Your task to perform on an android device: allow cookies in the chrome app Image 0: 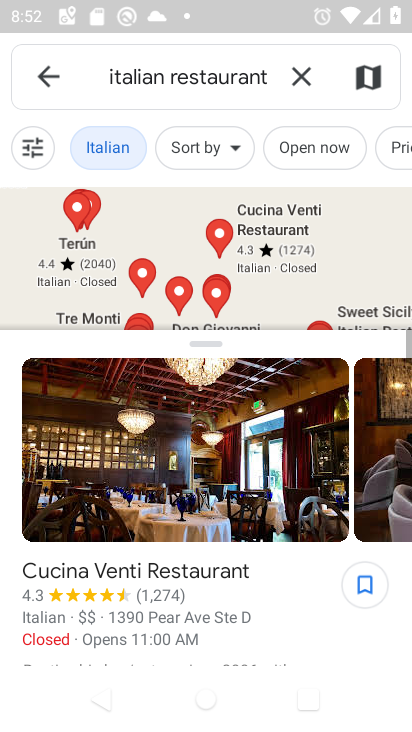
Step 0: press home button
Your task to perform on an android device: allow cookies in the chrome app Image 1: 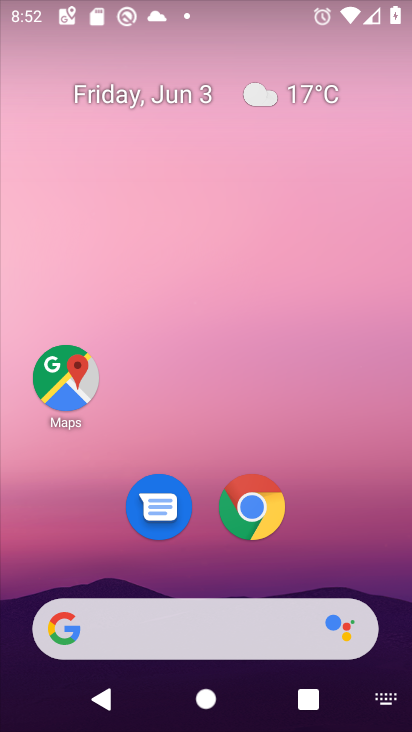
Step 1: click (233, 512)
Your task to perform on an android device: allow cookies in the chrome app Image 2: 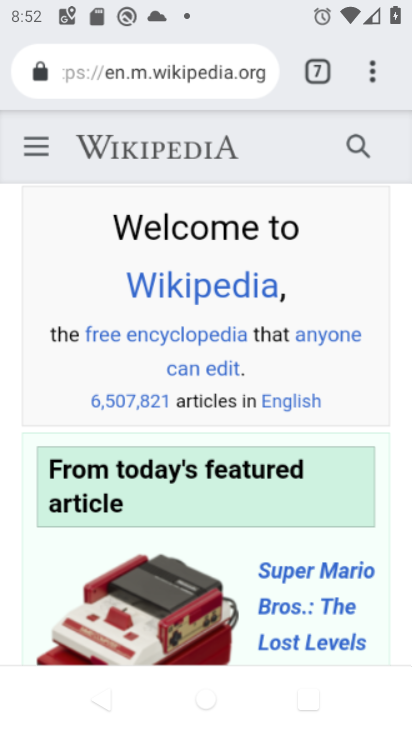
Step 2: click (369, 77)
Your task to perform on an android device: allow cookies in the chrome app Image 3: 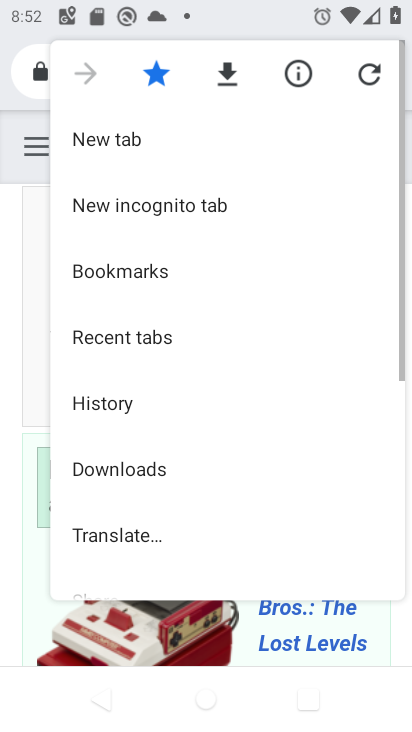
Step 3: click (203, 390)
Your task to perform on an android device: allow cookies in the chrome app Image 4: 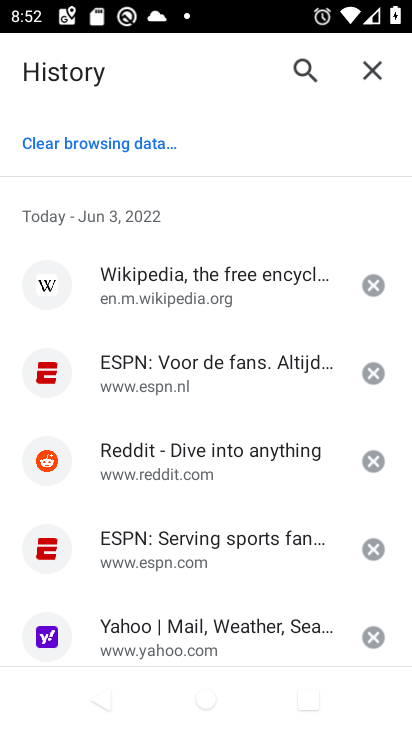
Step 4: click (84, 130)
Your task to perform on an android device: allow cookies in the chrome app Image 5: 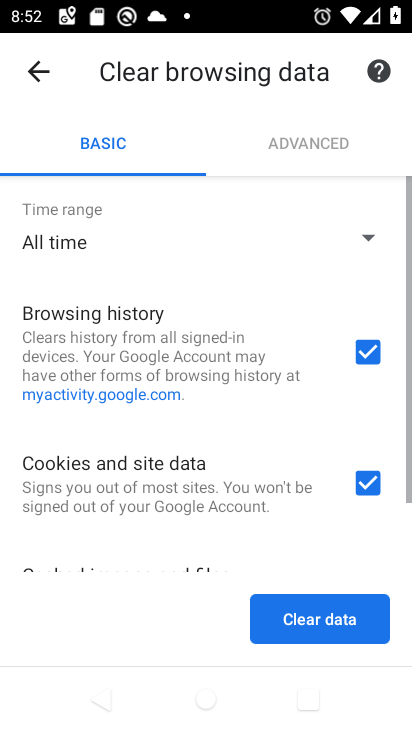
Step 5: click (350, 616)
Your task to perform on an android device: allow cookies in the chrome app Image 6: 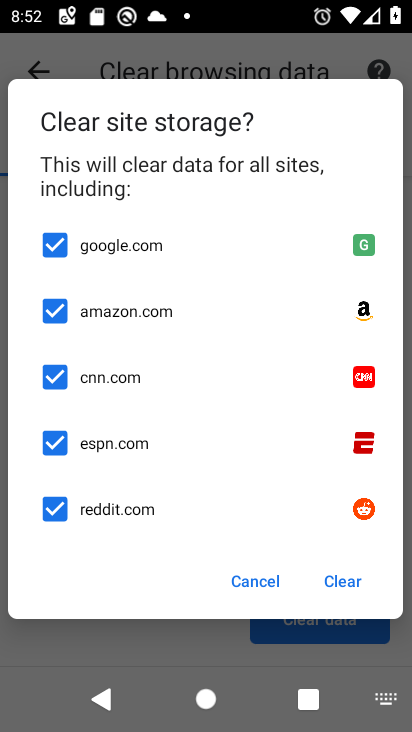
Step 6: click (344, 573)
Your task to perform on an android device: allow cookies in the chrome app Image 7: 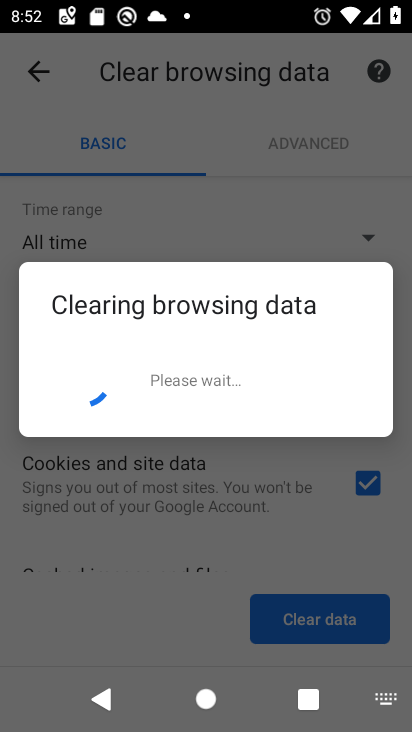
Step 7: click (351, 611)
Your task to perform on an android device: allow cookies in the chrome app Image 8: 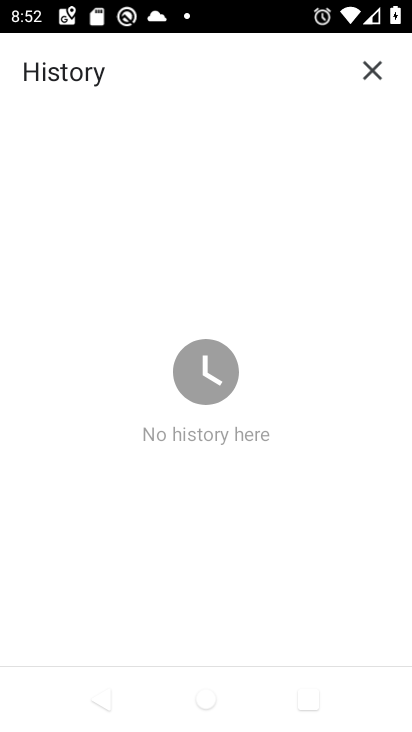
Step 8: task complete